Your task to perform on an android device: Open Google Maps and go to "Timeline" Image 0: 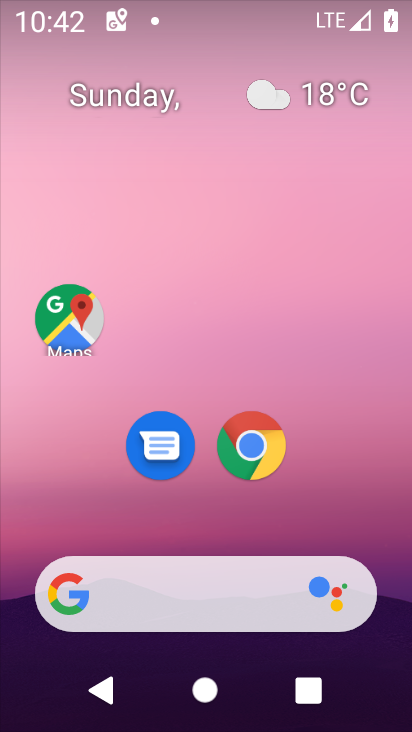
Step 0: click (71, 310)
Your task to perform on an android device: Open Google Maps and go to "Timeline" Image 1: 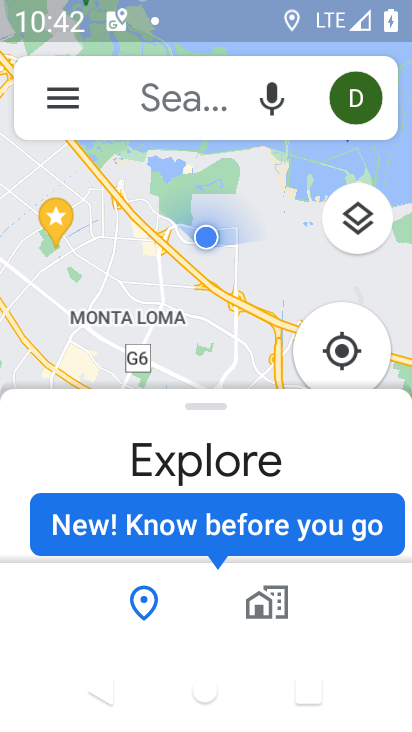
Step 1: click (41, 108)
Your task to perform on an android device: Open Google Maps and go to "Timeline" Image 2: 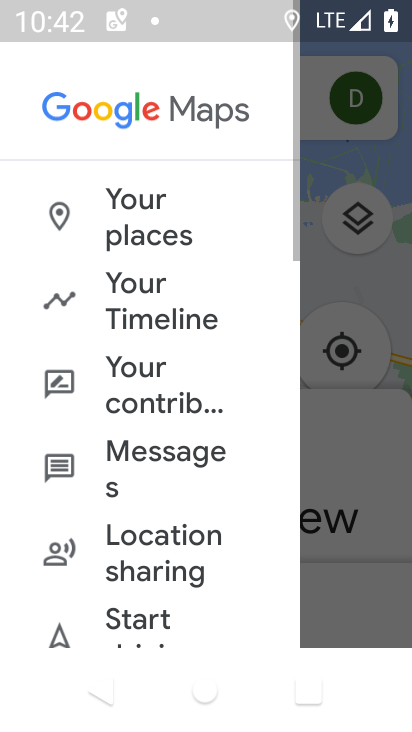
Step 2: click (151, 286)
Your task to perform on an android device: Open Google Maps and go to "Timeline" Image 3: 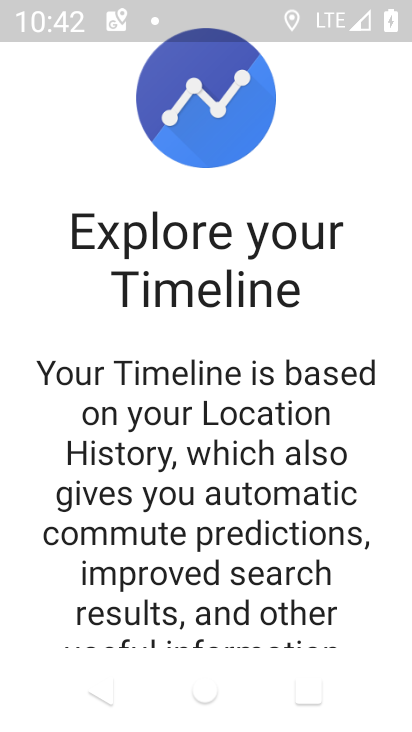
Step 3: drag from (203, 568) to (218, 134)
Your task to perform on an android device: Open Google Maps and go to "Timeline" Image 4: 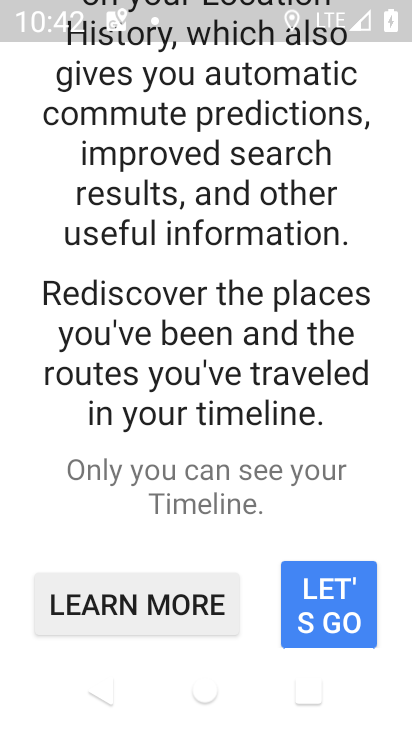
Step 4: click (312, 599)
Your task to perform on an android device: Open Google Maps and go to "Timeline" Image 5: 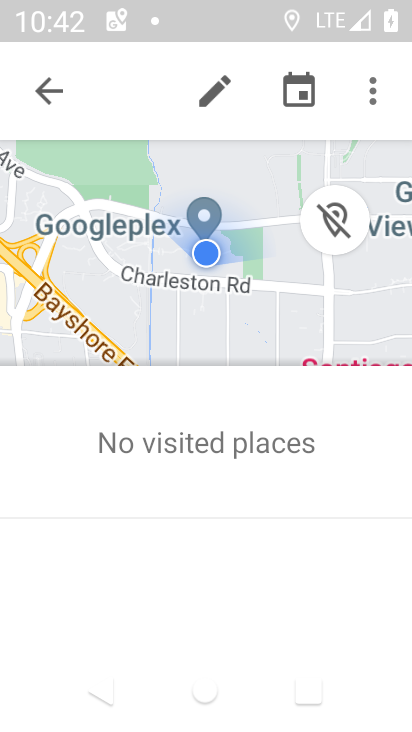
Step 5: task complete